Your task to perform on an android device: What's the weather like in Johannesburg? Image 0: 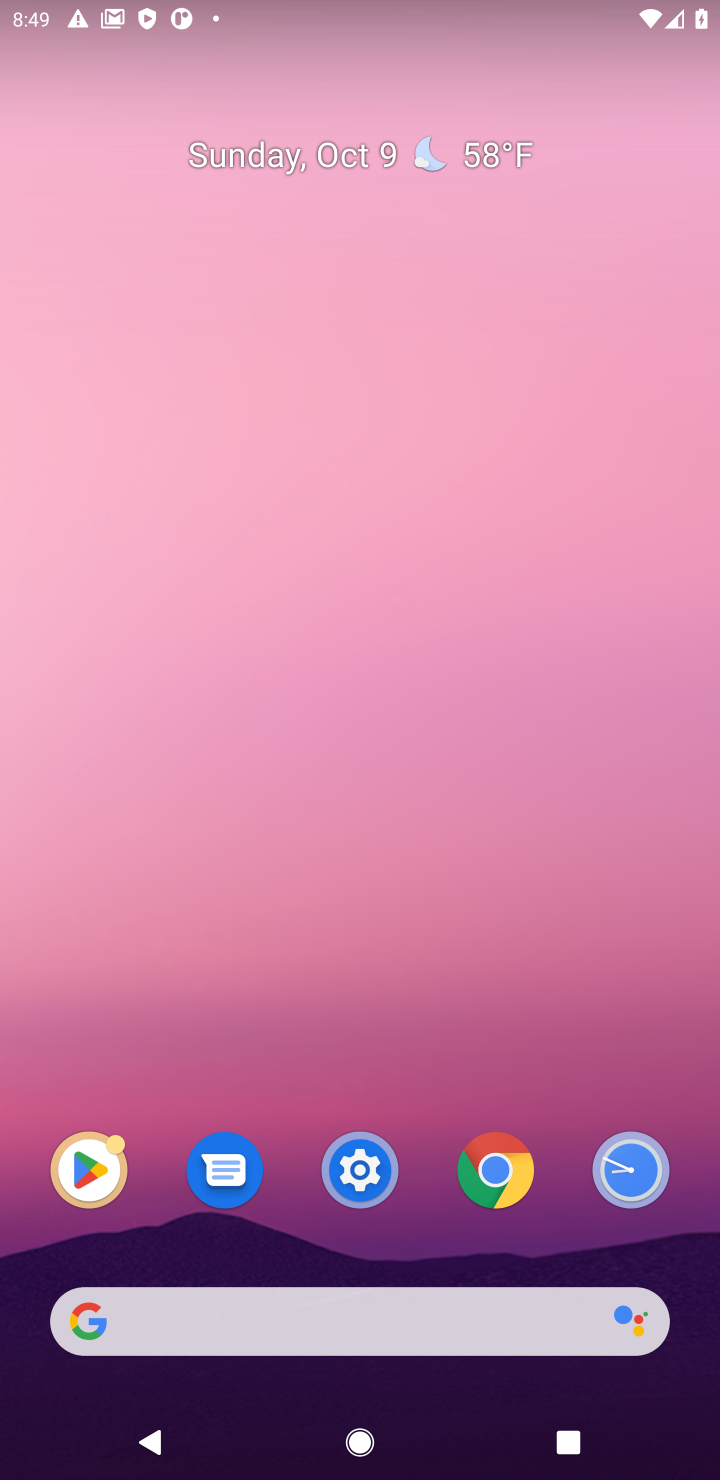
Step 0: click (241, 1322)
Your task to perform on an android device: What's the weather like in Johannesburg? Image 1: 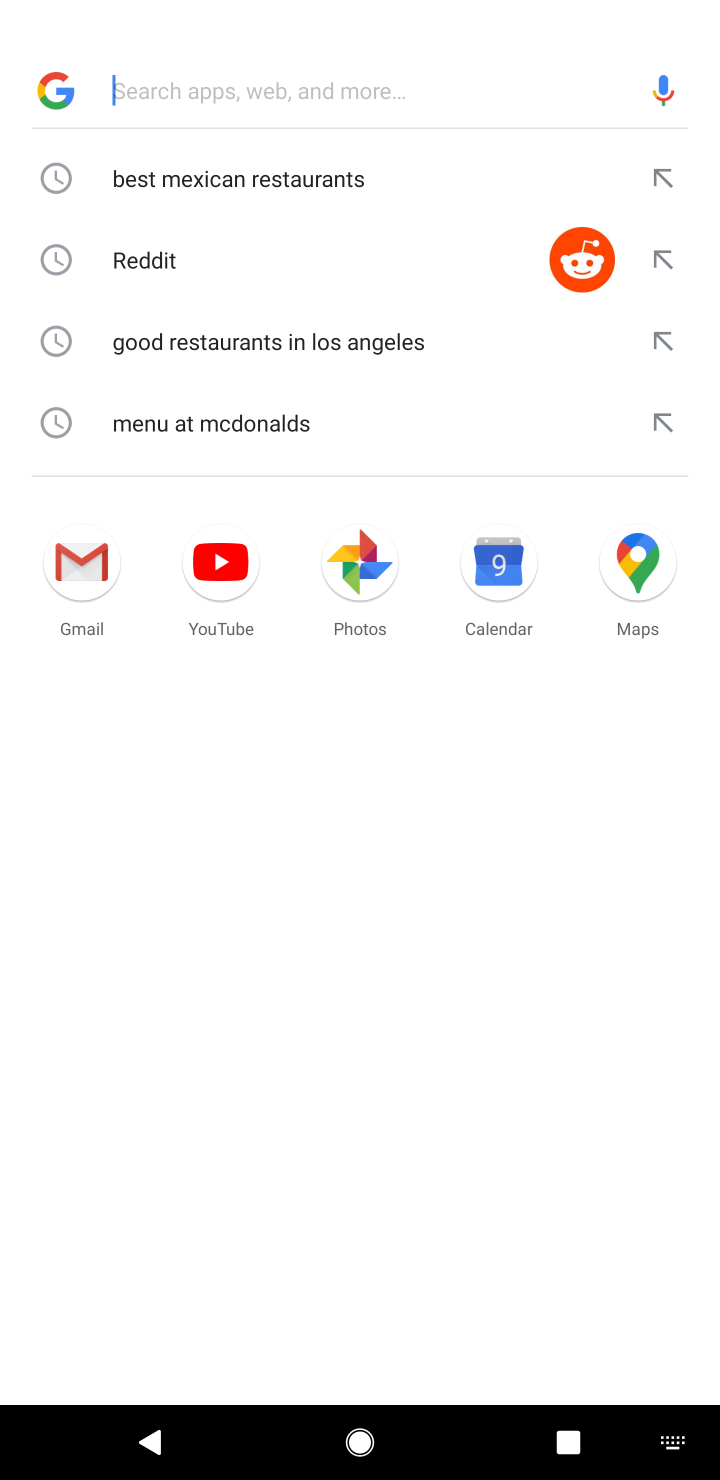
Step 1: type "What's the weather like in Johannesburg"
Your task to perform on an android device: What's the weather like in Johannesburg? Image 2: 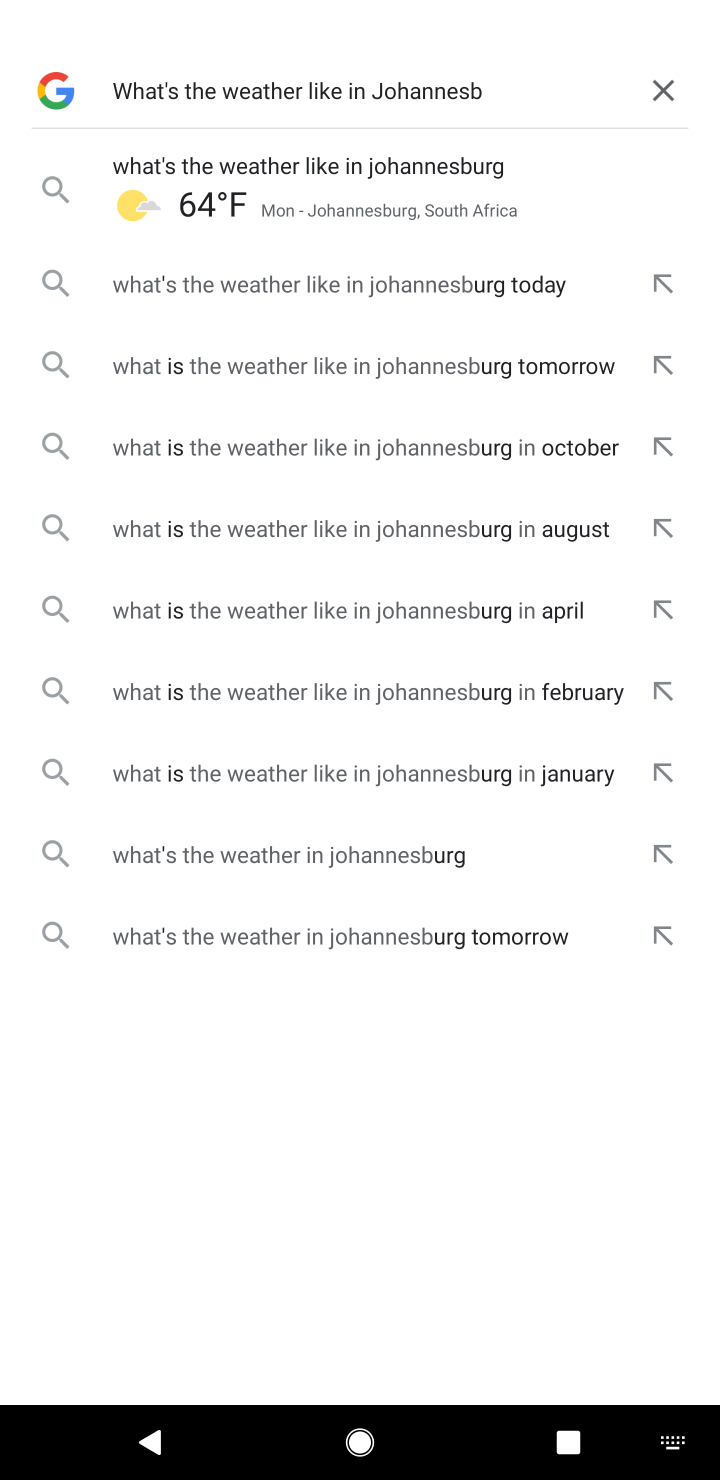
Step 2: click (424, 199)
Your task to perform on an android device: What's the weather like in Johannesburg? Image 3: 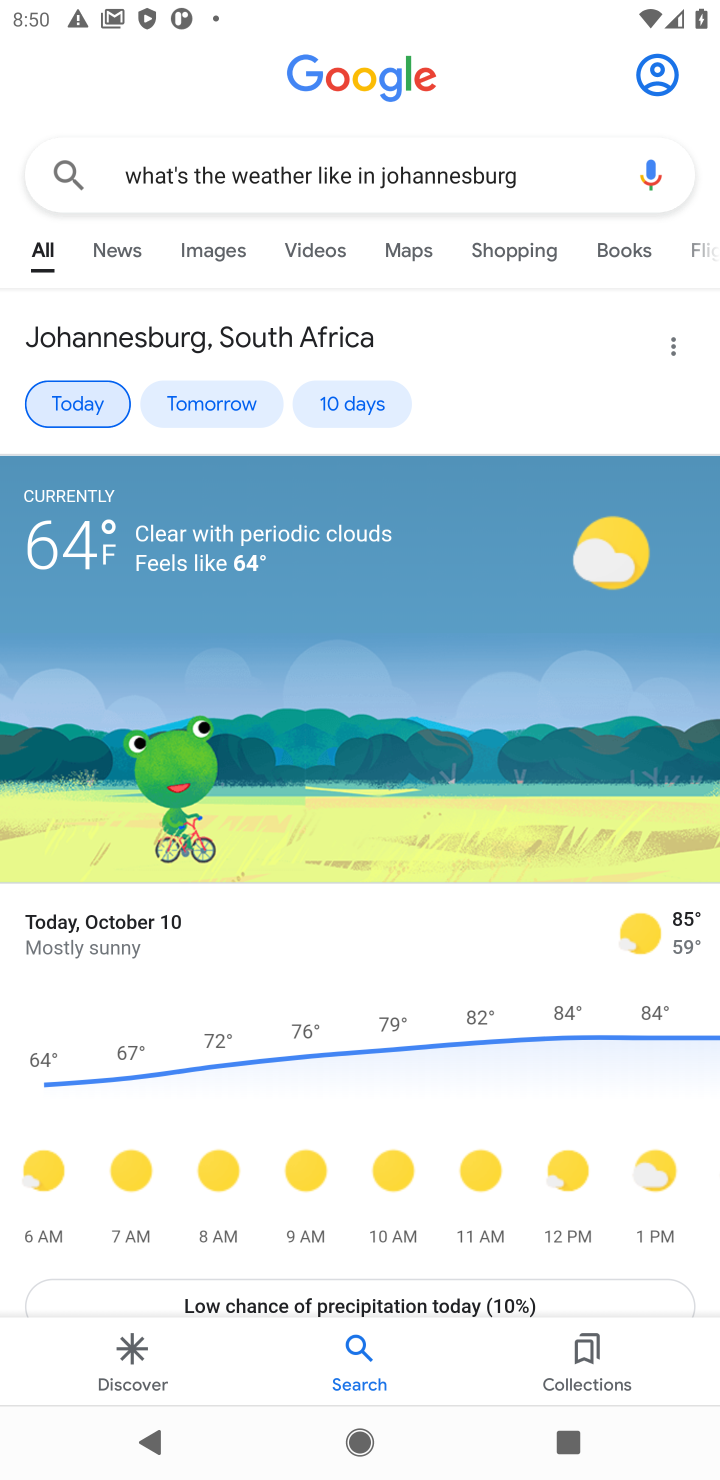
Step 3: task complete